Your task to perform on an android device: Search for hotels in Seattle Image 0: 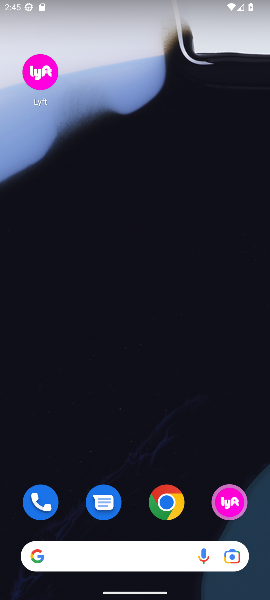
Step 0: click (163, 494)
Your task to perform on an android device: Search for hotels in Seattle Image 1: 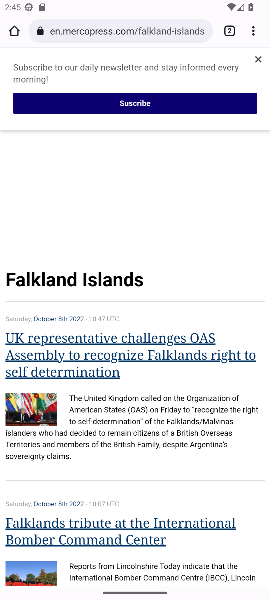
Step 1: click (140, 27)
Your task to perform on an android device: Search for hotels in Seattle Image 2: 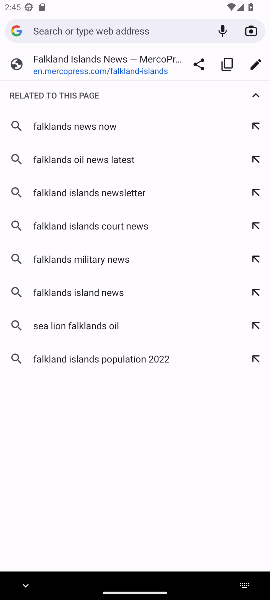
Step 2: type "hotels in seattle"
Your task to perform on an android device: Search for hotels in Seattle Image 3: 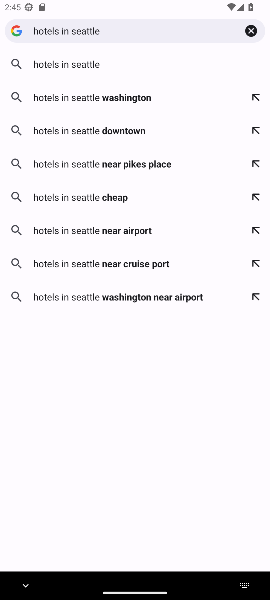
Step 3: click (101, 62)
Your task to perform on an android device: Search for hotels in Seattle Image 4: 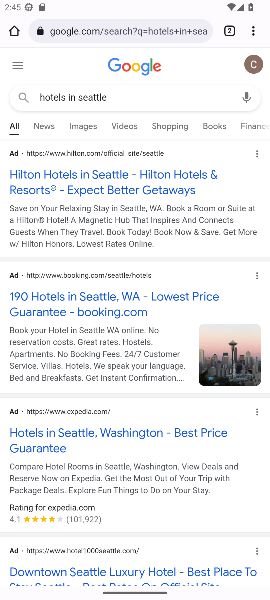
Step 4: click (109, 184)
Your task to perform on an android device: Search for hotels in Seattle Image 5: 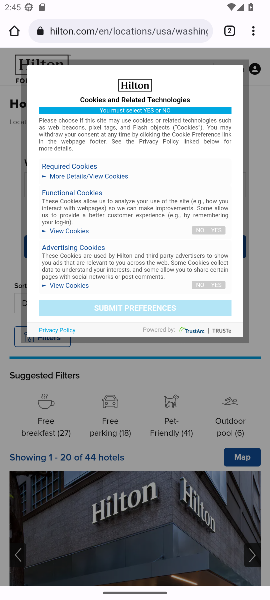
Step 5: task complete